Your task to perform on an android device: See recent photos Image 0: 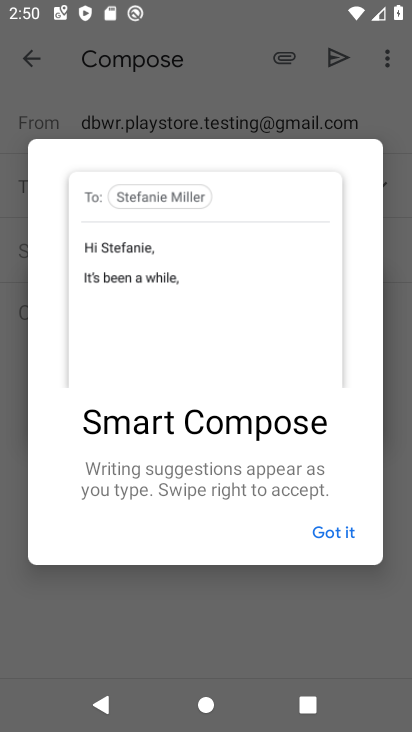
Step 0: press home button
Your task to perform on an android device: See recent photos Image 1: 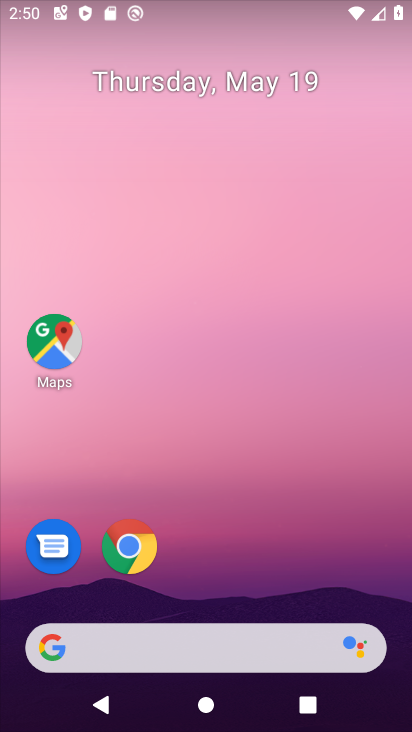
Step 1: drag from (252, 560) to (200, 133)
Your task to perform on an android device: See recent photos Image 2: 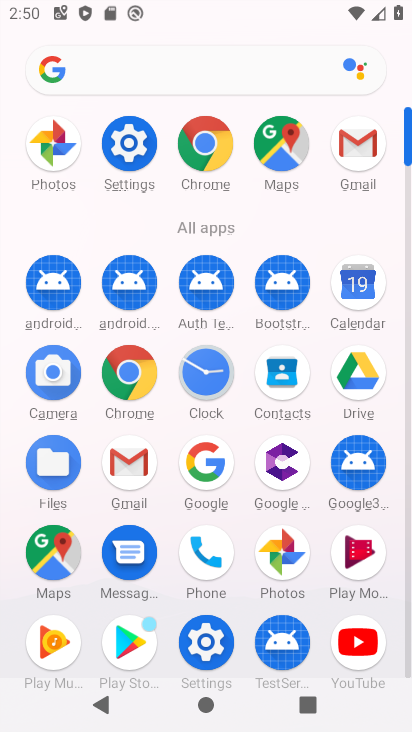
Step 2: click (55, 140)
Your task to perform on an android device: See recent photos Image 3: 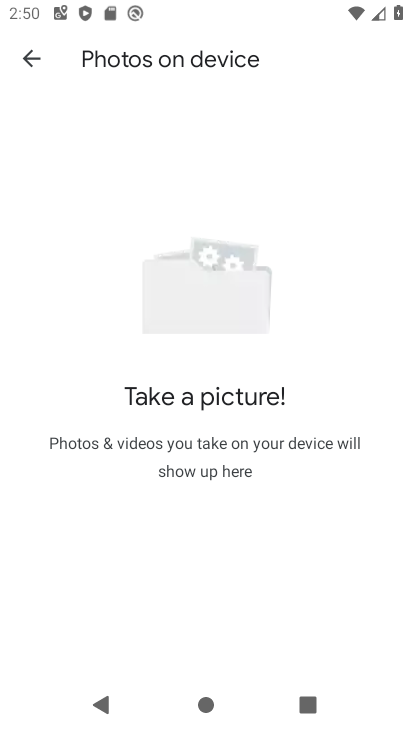
Step 3: press back button
Your task to perform on an android device: See recent photos Image 4: 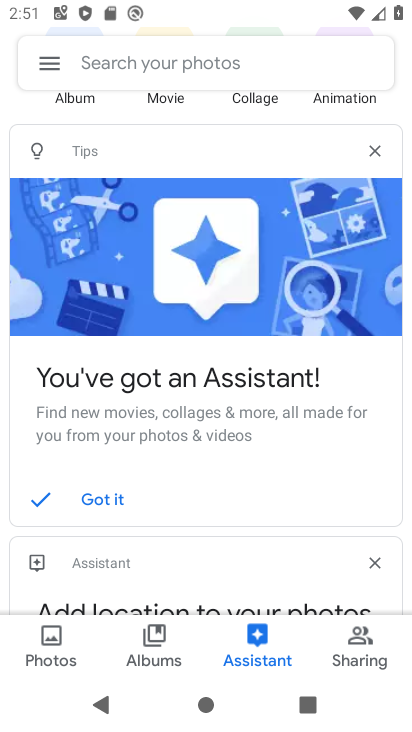
Step 4: click (59, 634)
Your task to perform on an android device: See recent photos Image 5: 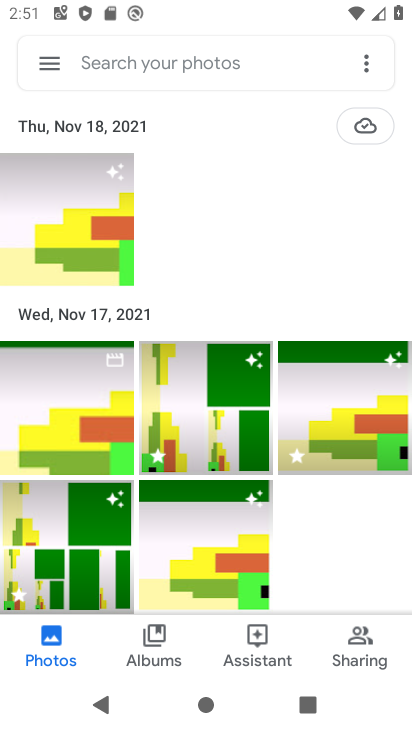
Step 5: click (101, 412)
Your task to perform on an android device: See recent photos Image 6: 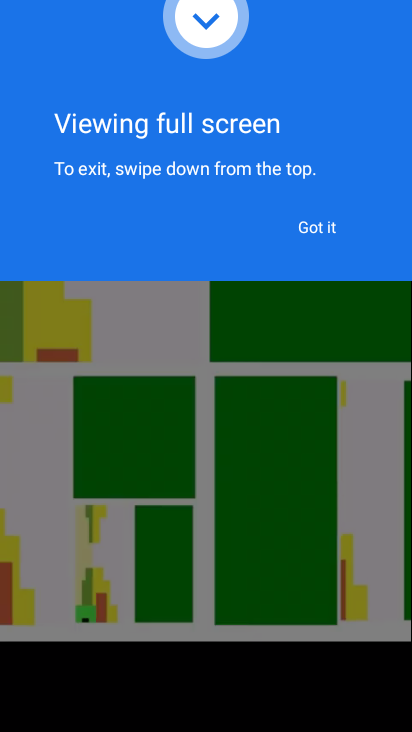
Step 6: task complete